Your task to perform on an android device: Open calendar and show me the third week of next month Image 0: 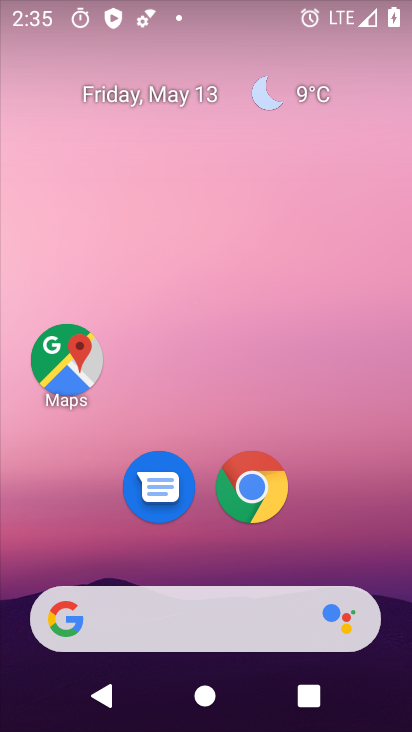
Step 0: drag from (190, 549) to (235, 107)
Your task to perform on an android device: Open calendar and show me the third week of next month Image 1: 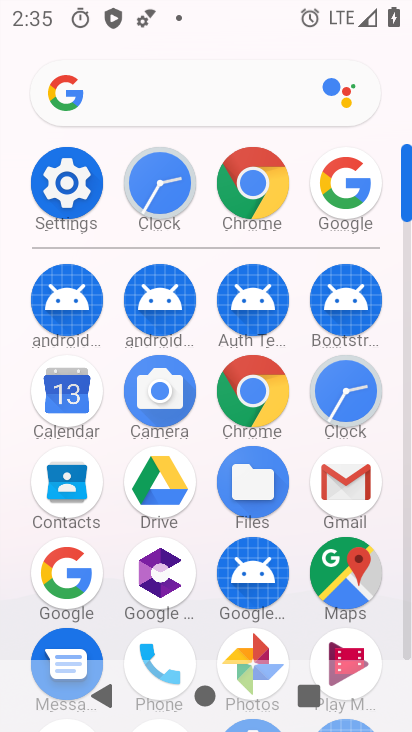
Step 1: click (58, 402)
Your task to perform on an android device: Open calendar and show me the third week of next month Image 2: 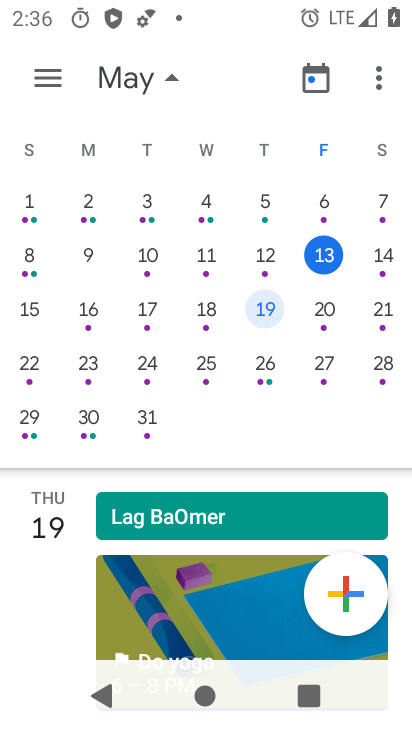
Step 2: drag from (366, 424) to (9, 411)
Your task to perform on an android device: Open calendar and show me the third week of next month Image 3: 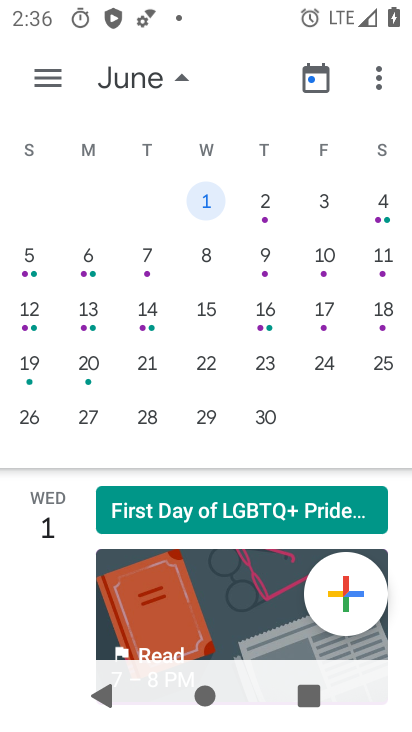
Step 3: click (204, 312)
Your task to perform on an android device: Open calendar and show me the third week of next month Image 4: 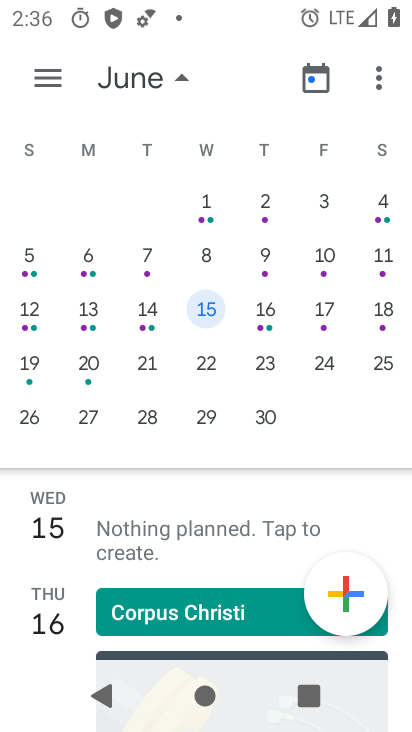
Step 4: task complete